Your task to perform on an android device: open chrome privacy settings Image 0: 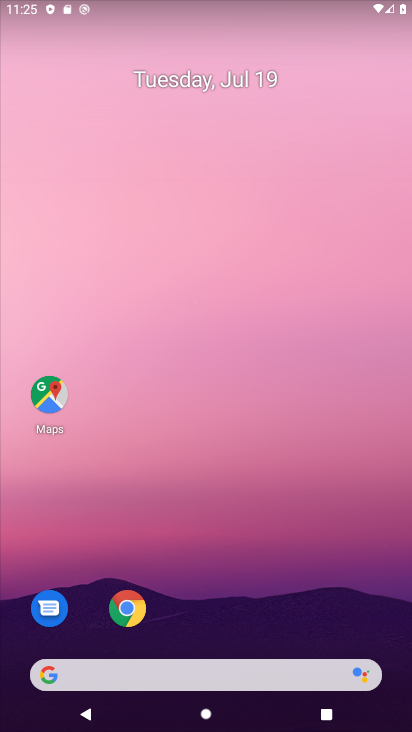
Step 0: click (129, 609)
Your task to perform on an android device: open chrome privacy settings Image 1: 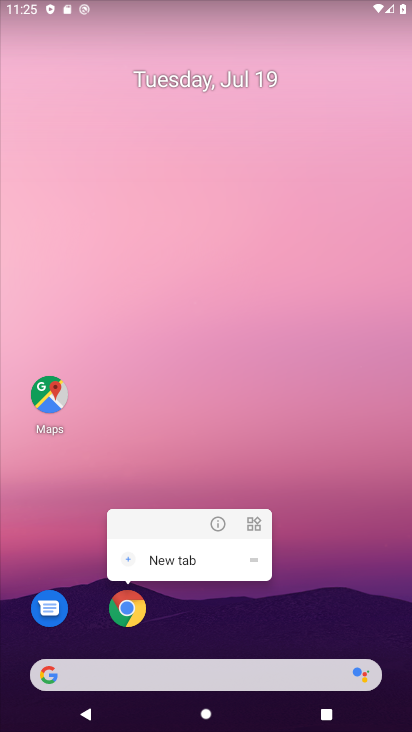
Step 1: click (129, 609)
Your task to perform on an android device: open chrome privacy settings Image 2: 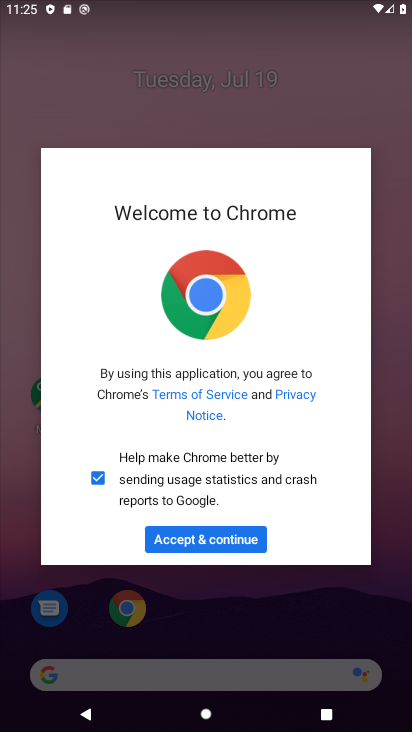
Step 2: click (208, 537)
Your task to perform on an android device: open chrome privacy settings Image 3: 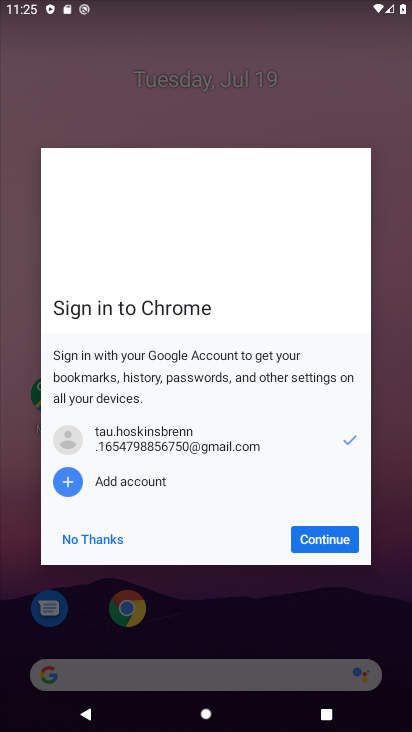
Step 3: click (310, 541)
Your task to perform on an android device: open chrome privacy settings Image 4: 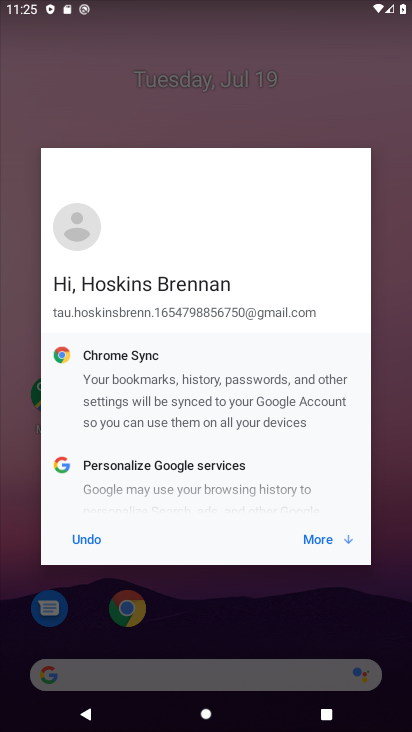
Step 4: click (310, 541)
Your task to perform on an android device: open chrome privacy settings Image 5: 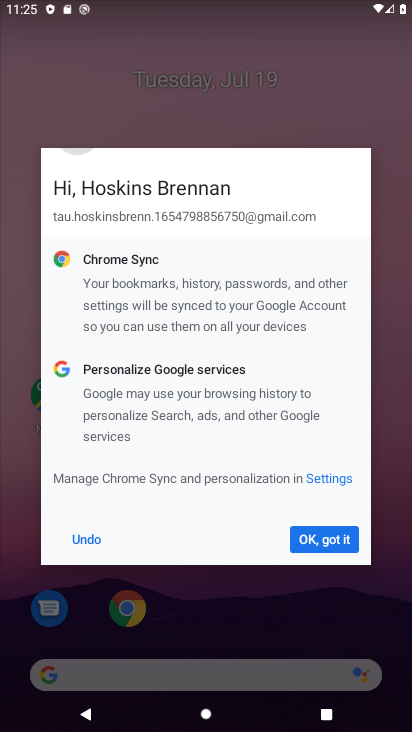
Step 5: click (310, 541)
Your task to perform on an android device: open chrome privacy settings Image 6: 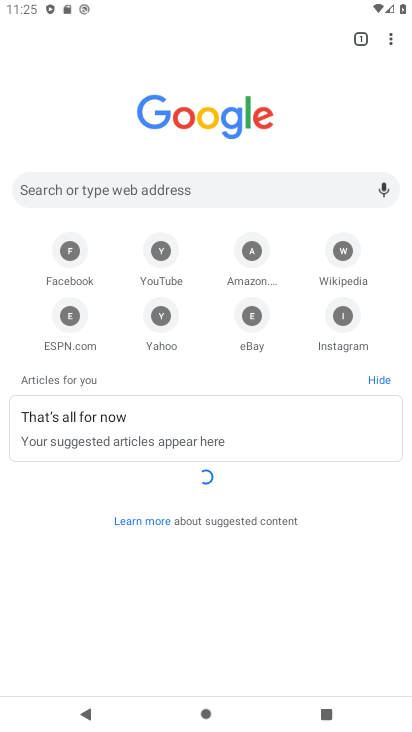
Step 6: click (387, 44)
Your task to perform on an android device: open chrome privacy settings Image 7: 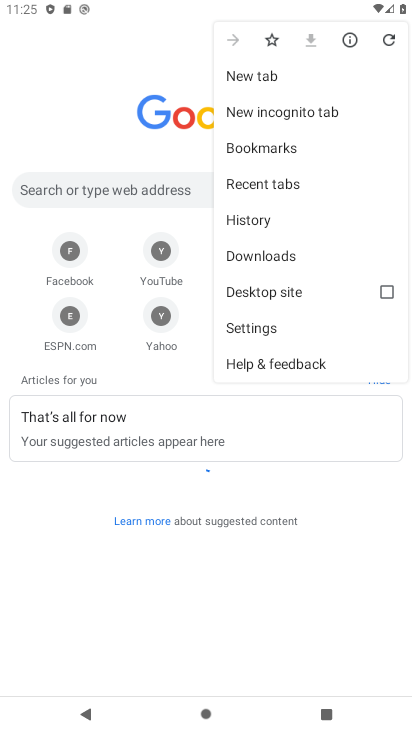
Step 7: click (276, 329)
Your task to perform on an android device: open chrome privacy settings Image 8: 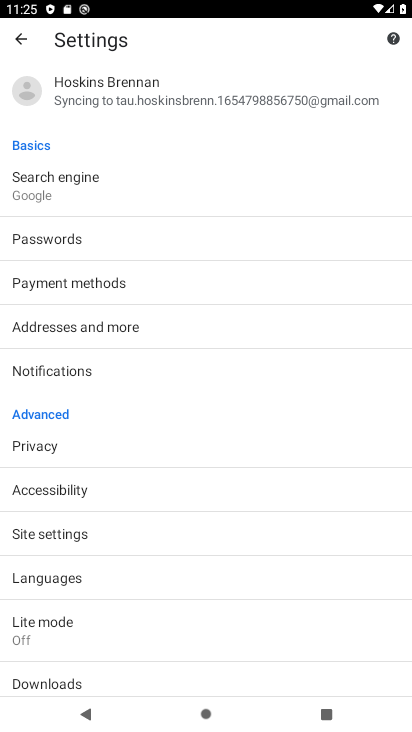
Step 8: click (51, 447)
Your task to perform on an android device: open chrome privacy settings Image 9: 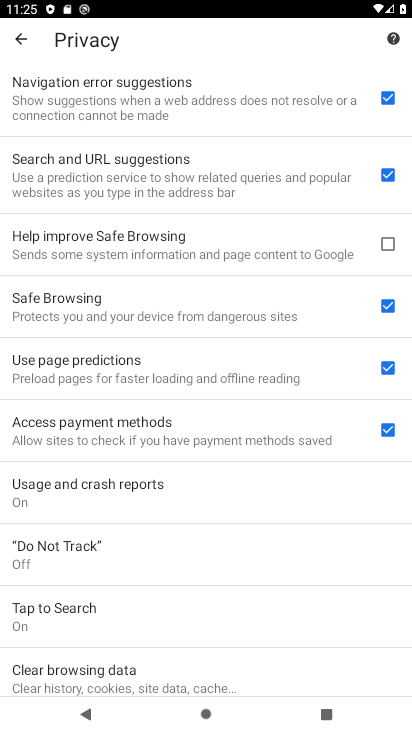
Step 9: task complete